Your task to perform on an android device: turn on priority inbox in the gmail app Image 0: 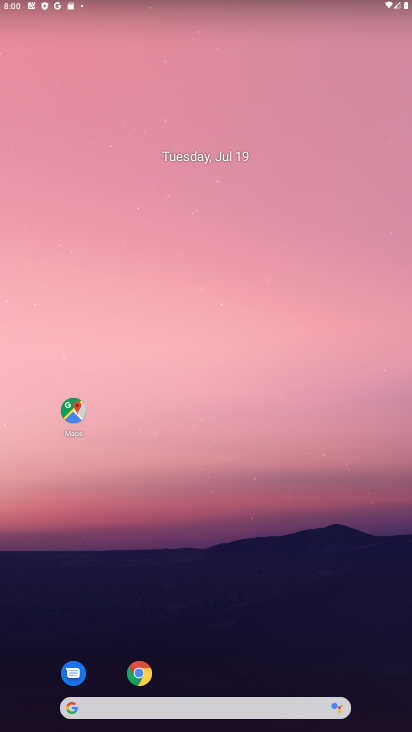
Step 0: drag from (250, 671) to (258, 109)
Your task to perform on an android device: turn on priority inbox in the gmail app Image 1: 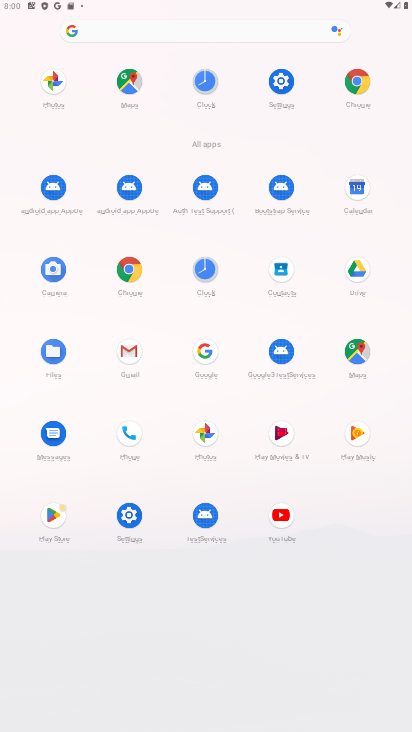
Step 1: click (207, 354)
Your task to perform on an android device: turn on priority inbox in the gmail app Image 2: 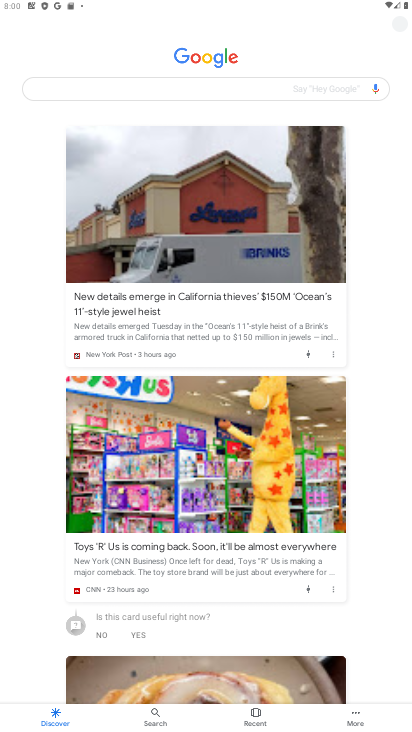
Step 2: task complete